Your task to perform on an android device: Open the stopwatch Image 0: 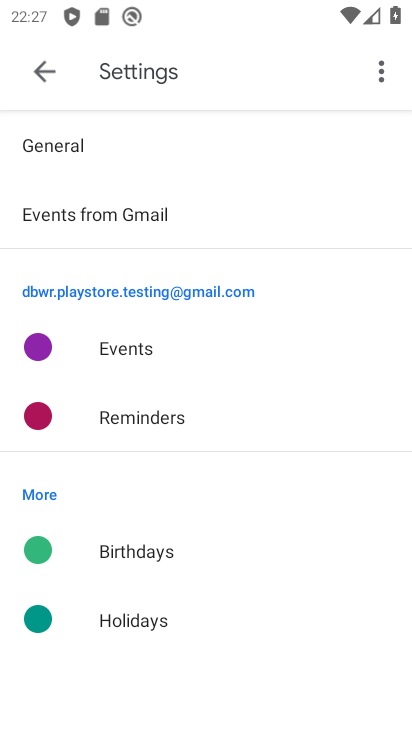
Step 0: press home button
Your task to perform on an android device: Open the stopwatch Image 1: 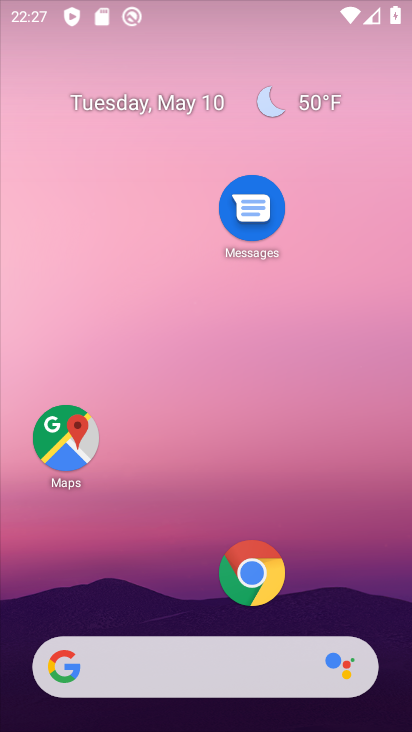
Step 1: drag from (182, 593) to (120, 95)
Your task to perform on an android device: Open the stopwatch Image 2: 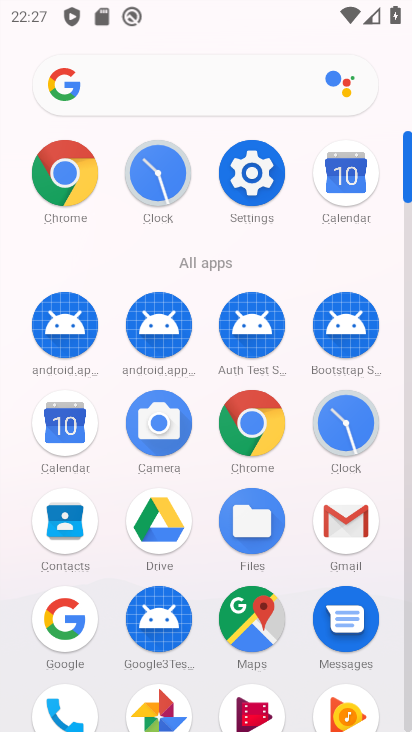
Step 2: click (335, 422)
Your task to perform on an android device: Open the stopwatch Image 3: 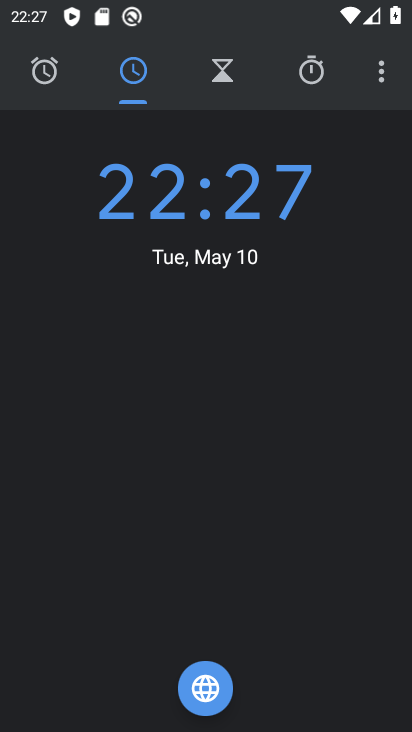
Step 3: click (311, 75)
Your task to perform on an android device: Open the stopwatch Image 4: 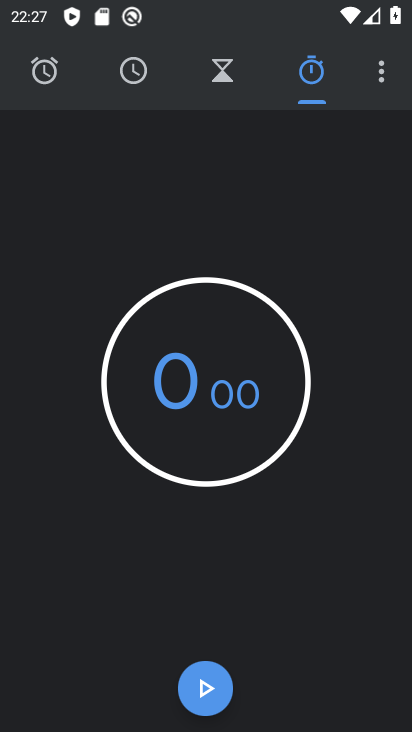
Step 4: click (234, 688)
Your task to perform on an android device: Open the stopwatch Image 5: 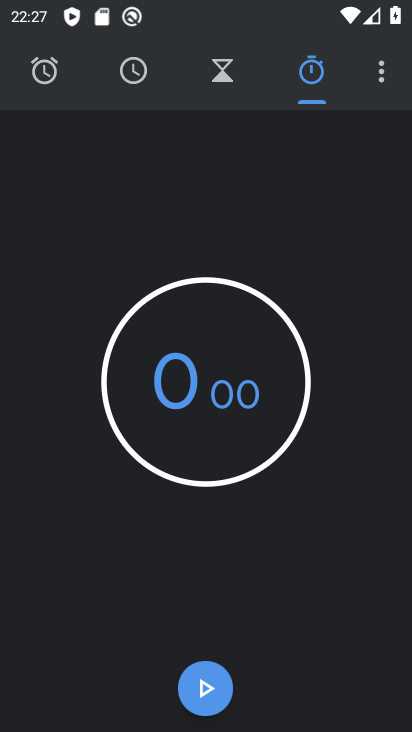
Step 5: click (196, 692)
Your task to perform on an android device: Open the stopwatch Image 6: 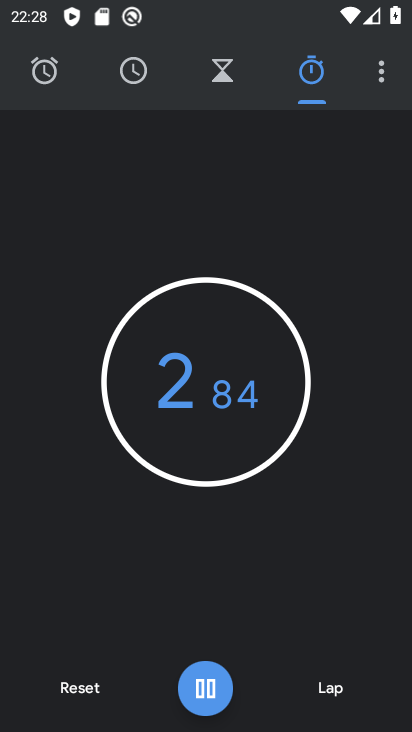
Step 6: click (205, 677)
Your task to perform on an android device: Open the stopwatch Image 7: 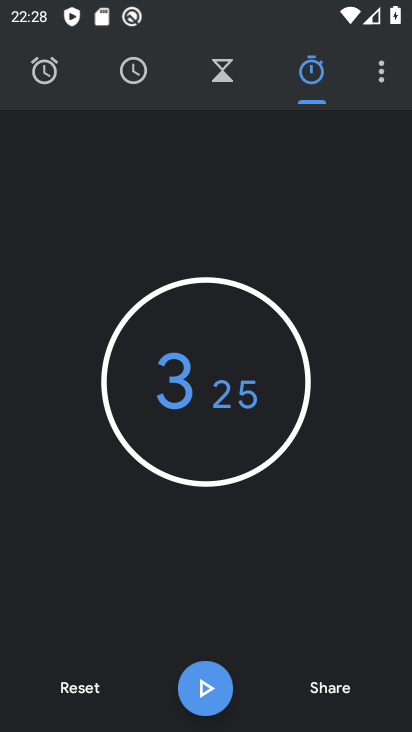
Step 7: task complete